Your task to perform on an android device: Search for seafood restaurants on Google Maps Image 0: 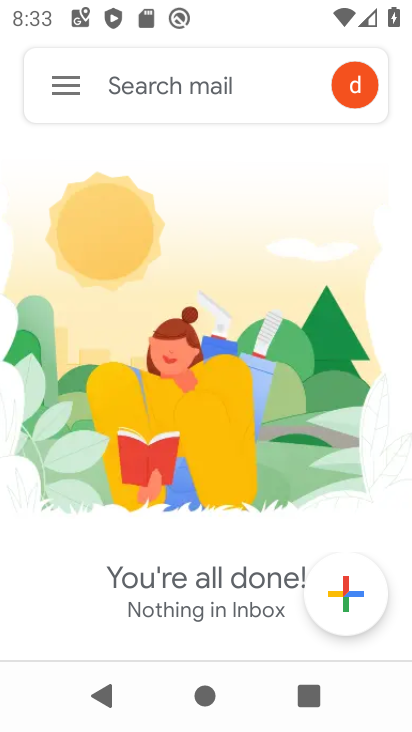
Step 0: press home button
Your task to perform on an android device: Search for seafood restaurants on Google Maps Image 1: 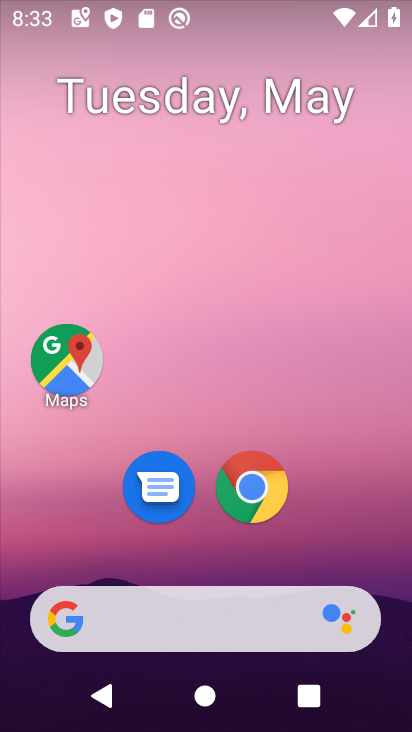
Step 1: drag from (368, 536) to (393, 167)
Your task to perform on an android device: Search for seafood restaurants on Google Maps Image 2: 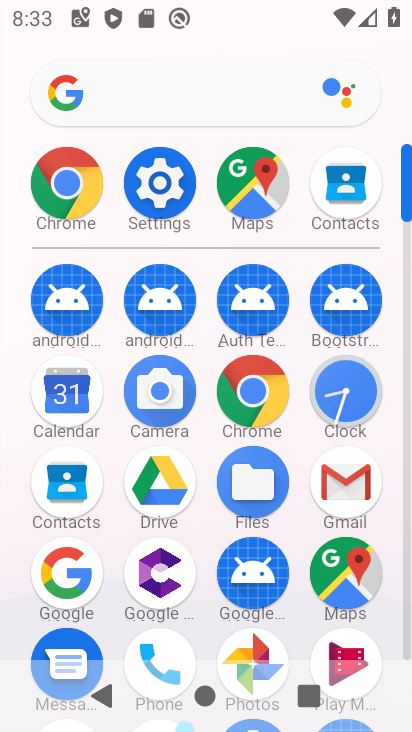
Step 2: click (359, 562)
Your task to perform on an android device: Search for seafood restaurants on Google Maps Image 3: 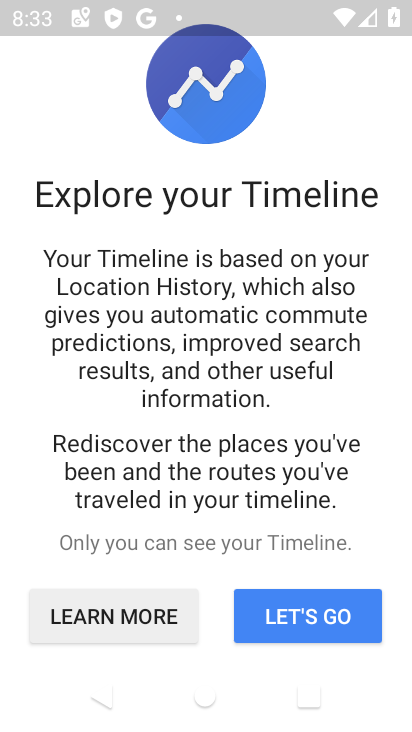
Step 3: drag from (350, 555) to (344, 426)
Your task to perform on an android device: Search for seafood restaurants on Google Maps Image 4: 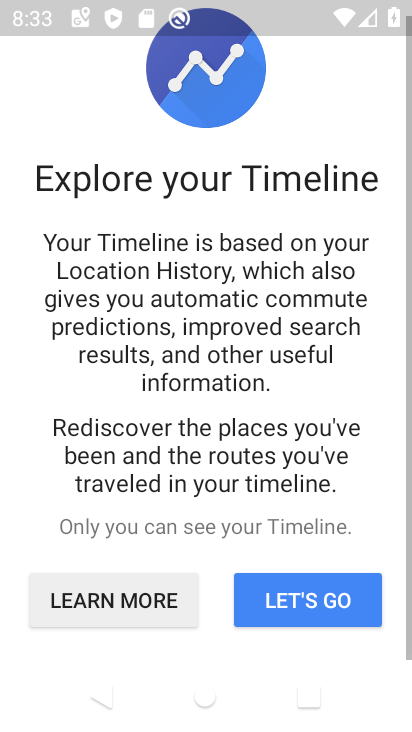
Step 4: click (347, 591)
Your task to perform on an android device: Search for seafood restaurants on Google Maps Image 5: 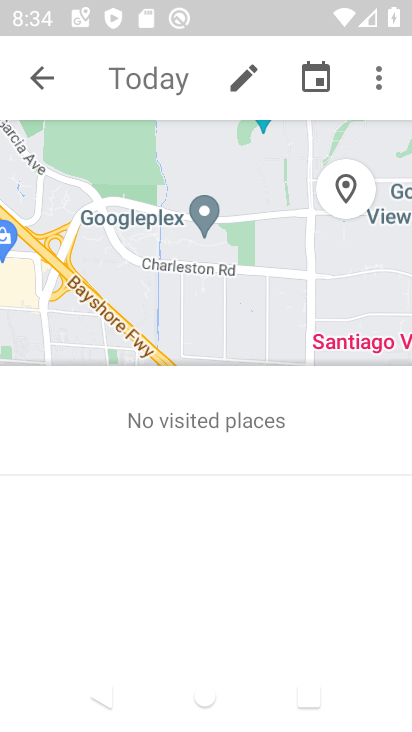
Step 5: click (49, 80)
Your task to perform on an android device: Search for seafood restaurants on Google Maps Image 6: 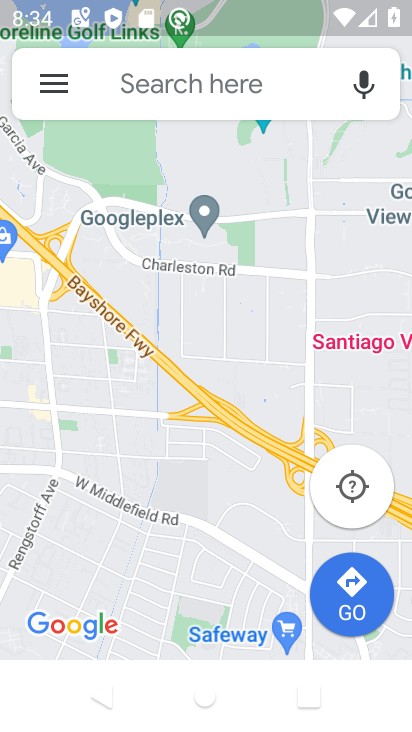
Step 6: click (162, 100)
Your task to perform on an android device: Search for seafood restaurants on Google Maps Image 7: 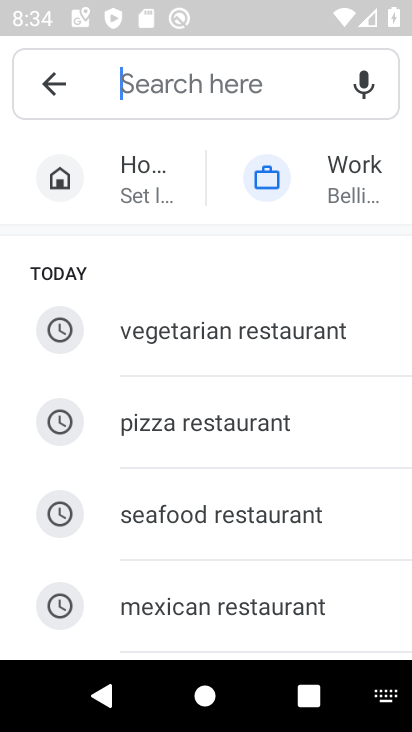
Step 7: type "seagood restayranta"
Your task to perform on an android device: Search for seafood restaurants on Google Maps Image 8: 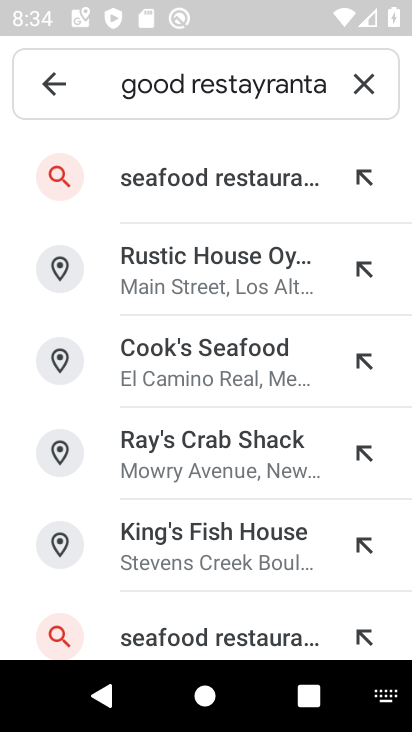
Step 8: click (269, 182)
Your task to perform on an android device: Search for seafood restaurants on Google Maps Image 9: 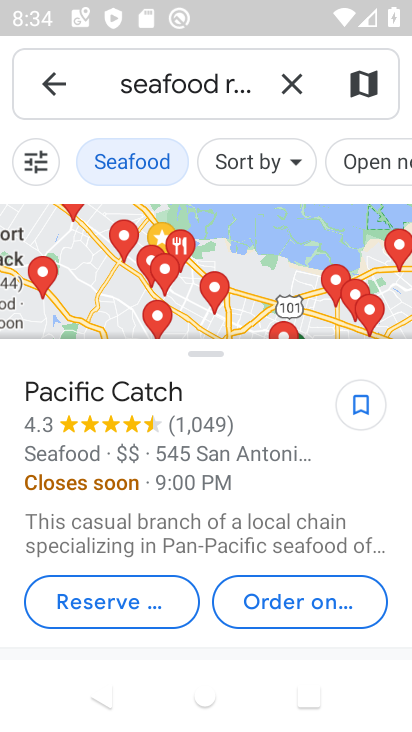
Step 9: task complete